Your task to perform on an android device: Turn off the flashlight Image 0: 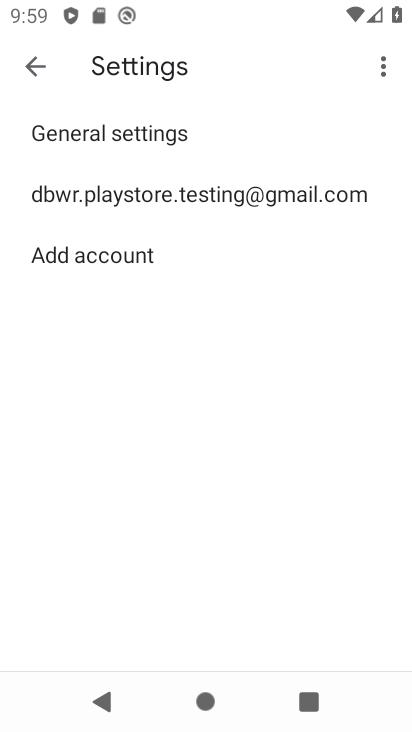
Step 0: press home button
Your task to perform on an android device: Turn off the flashlight Image 1: 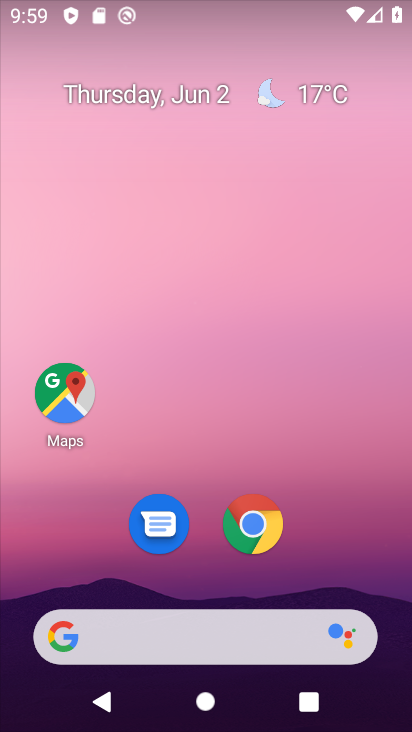
Step 1: drag from (238, 442) to (267, 0)
Your task to perform on an android device: Turn off the flashlight Image 2: 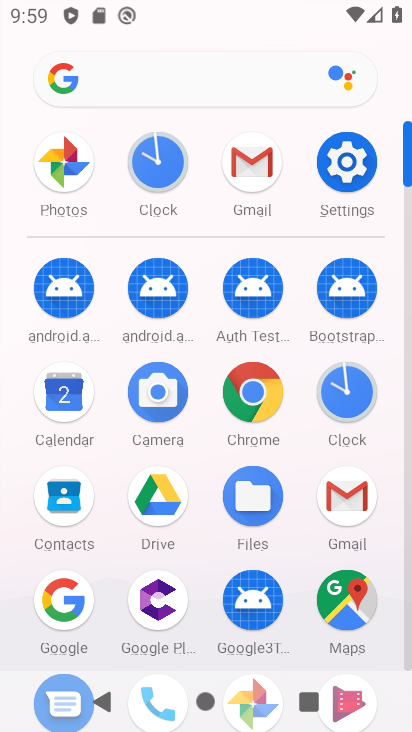
Step 2: click (356, 169)
Your task to perform on an android device: Turn off the flashlight Image 3: 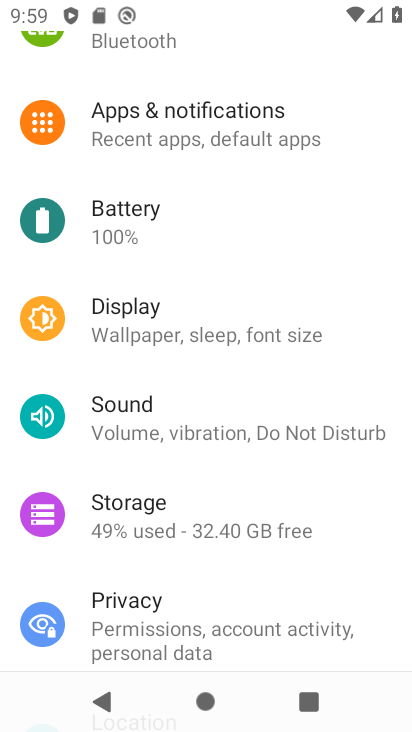
Step 3: drag from (283, 231) to (295, 627)
Your task to perform on an android device: Turn off the flashlight Image 4: 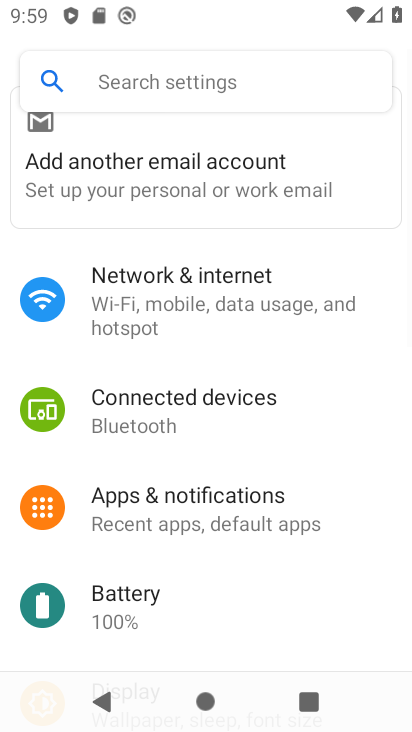
Step 4: drag from (211, 298) to (222, 535)
Your task to perform on an android device: Turn off the flashlight Image 5: 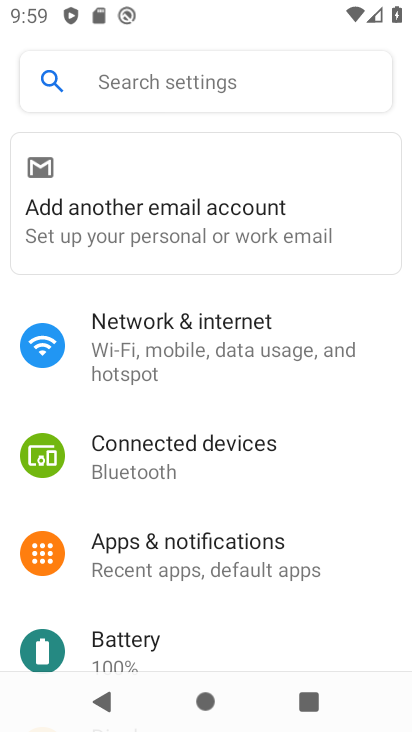
Step 5: click (238, 71)
Your task to perform on an android device: Turn off the flashlight Image 6: 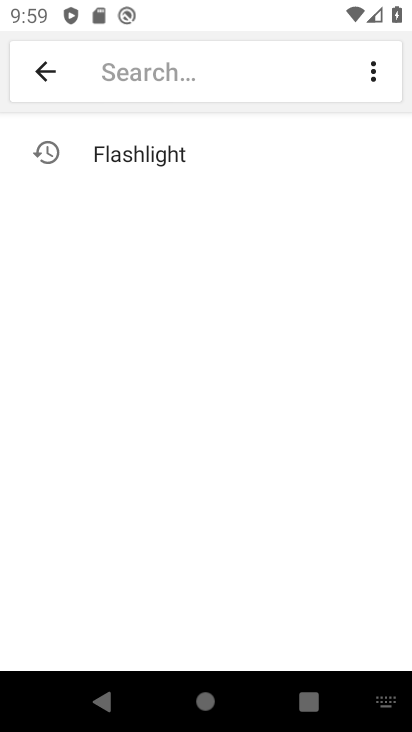
Step 6: type "Flashlight"
Your task to perform on an android device: Turn off the flashlight Image 7: 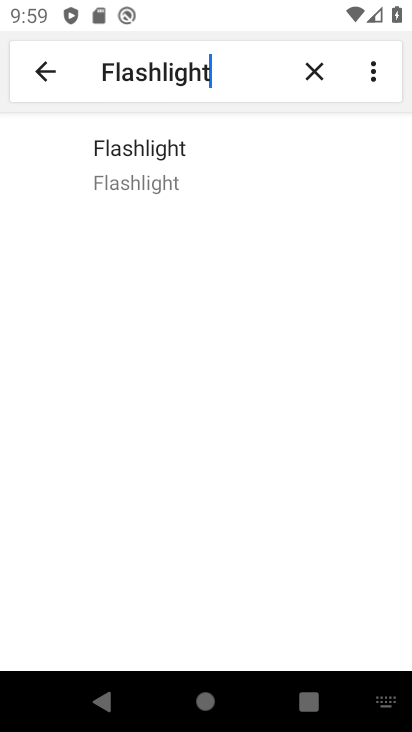
Step 7: click (178, 155)
Your task to perform on an android device: Turn off the flashlight Image 8: 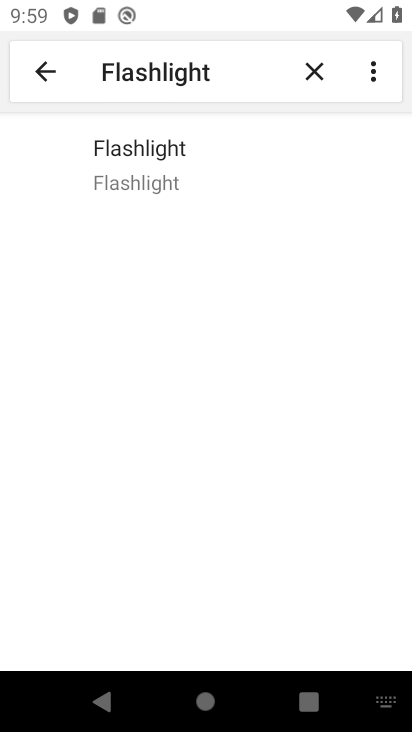
Step 8: click (178, 155)
Your task to perform on an android device: Turn off the flashlight Image 9: 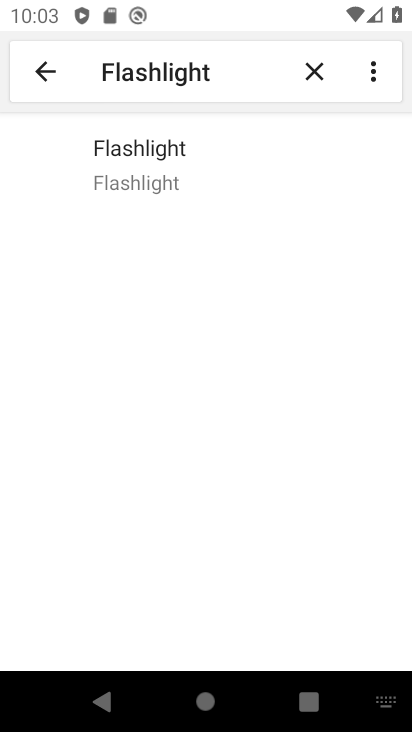
Step 9: task complete